Your task to perform on an android device: Go to accessibility settings Image 0: 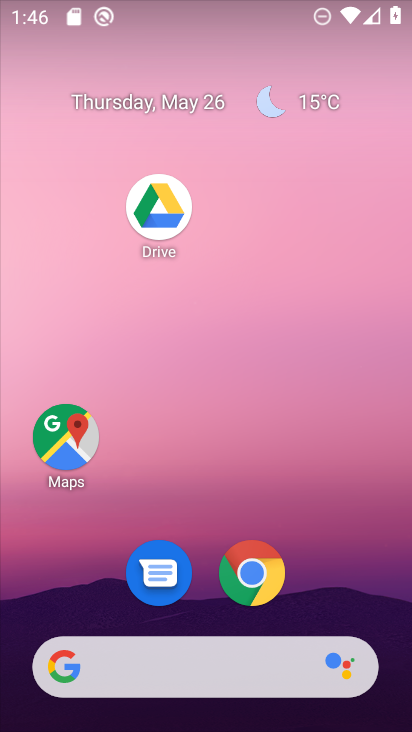
Step 0: drag from (354, 601) to (277, 85)
Your task to perform on an android device: Go to accessibility settings Image 1: 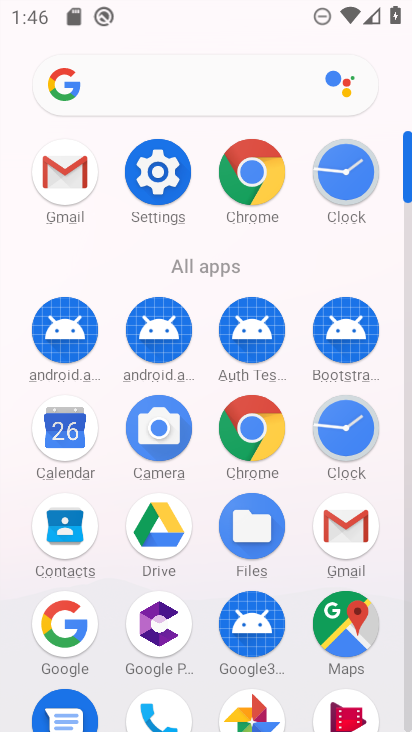
Step 1: click (149, 179)
Your task to perform on an android device: Go to accessibility settings Image 2: 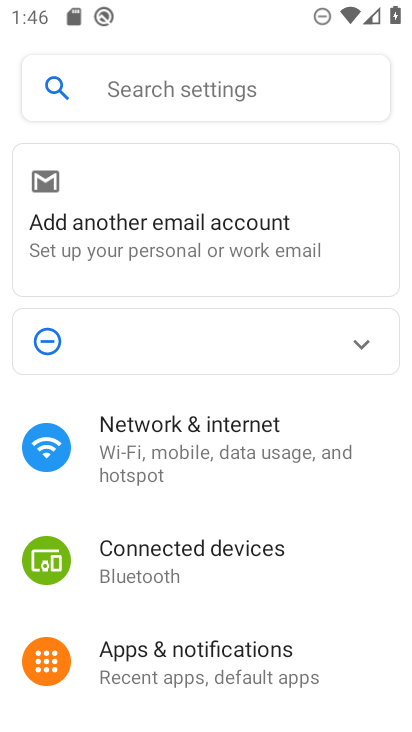
Step 2: drag from (350, 608) to (304, 98)
Your task to perform on an android device: Go to accessibility settings Image 3: 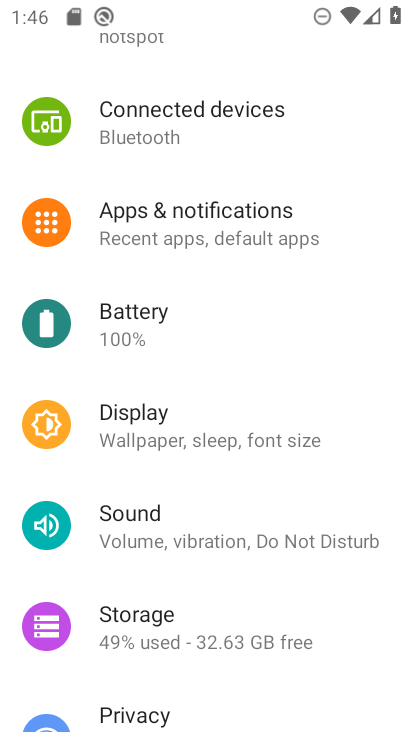
Step 3: drag from (292, 642) to (287, 267)
Your task to perform on an android device: Go to accessibility settings Image 4: 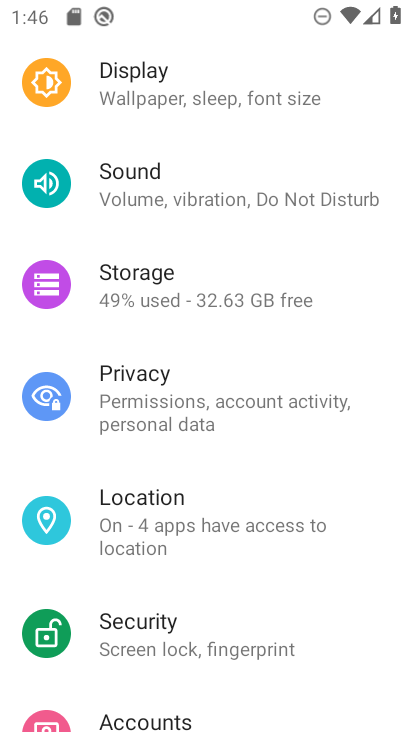
Step 4: drag from (296, 640) to (296, 160)
Your task to perform on an android device: Go to accessibility settings Image 5: 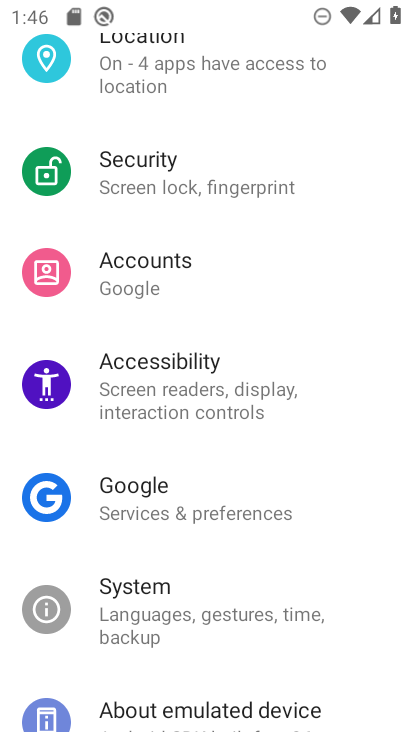
Step 5: click (203, 416)
Your task to perform on an android device: Go to accessibility settings Image 6: 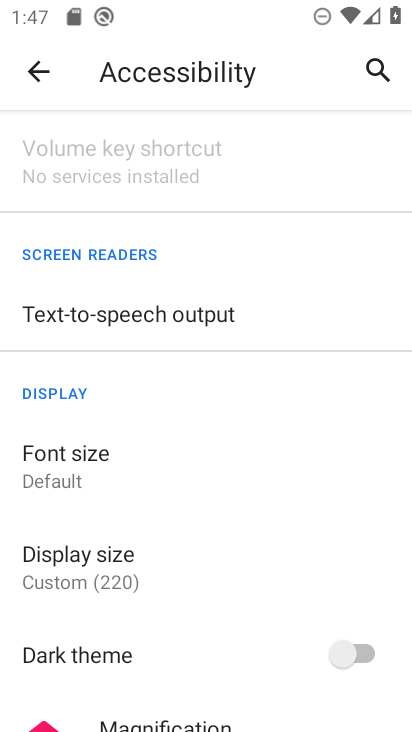
Step 6: task complete